Your task to perform on an android device: Go to network settings Image 0: 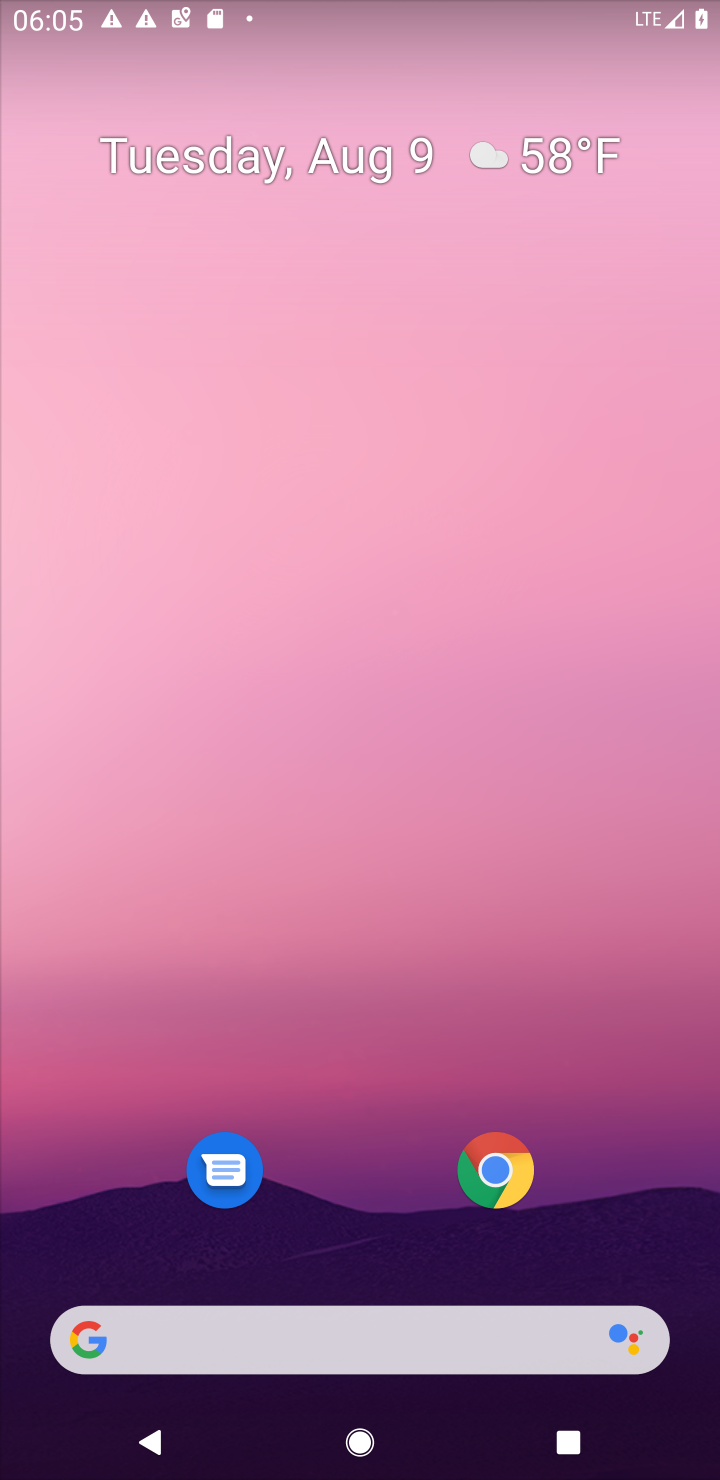
Step 0: drag from (423, 1246) to (473, 0)
Your task to perform on an android device: Go to network settings Image 1: 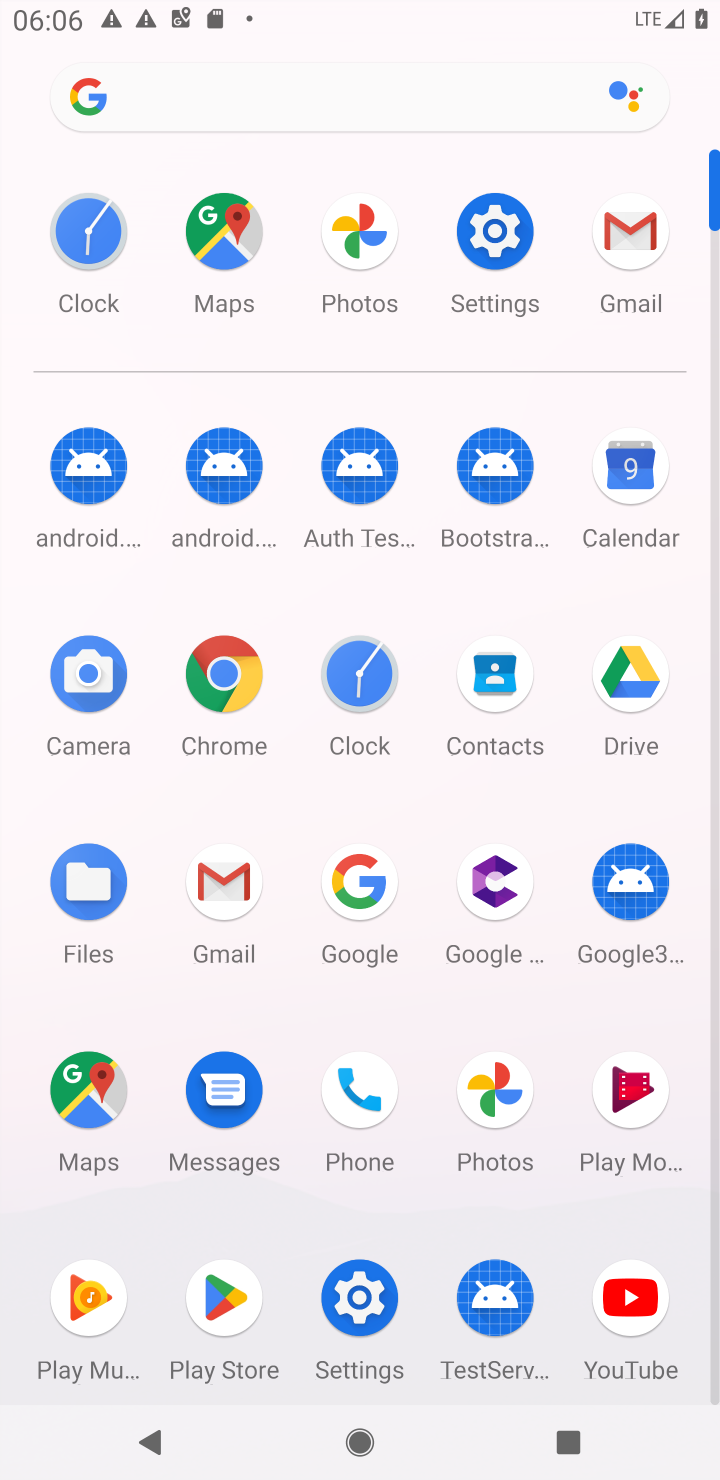
Step 1: click (490, 227)
Your task to perform on an android device: Go to network settings Image 2: 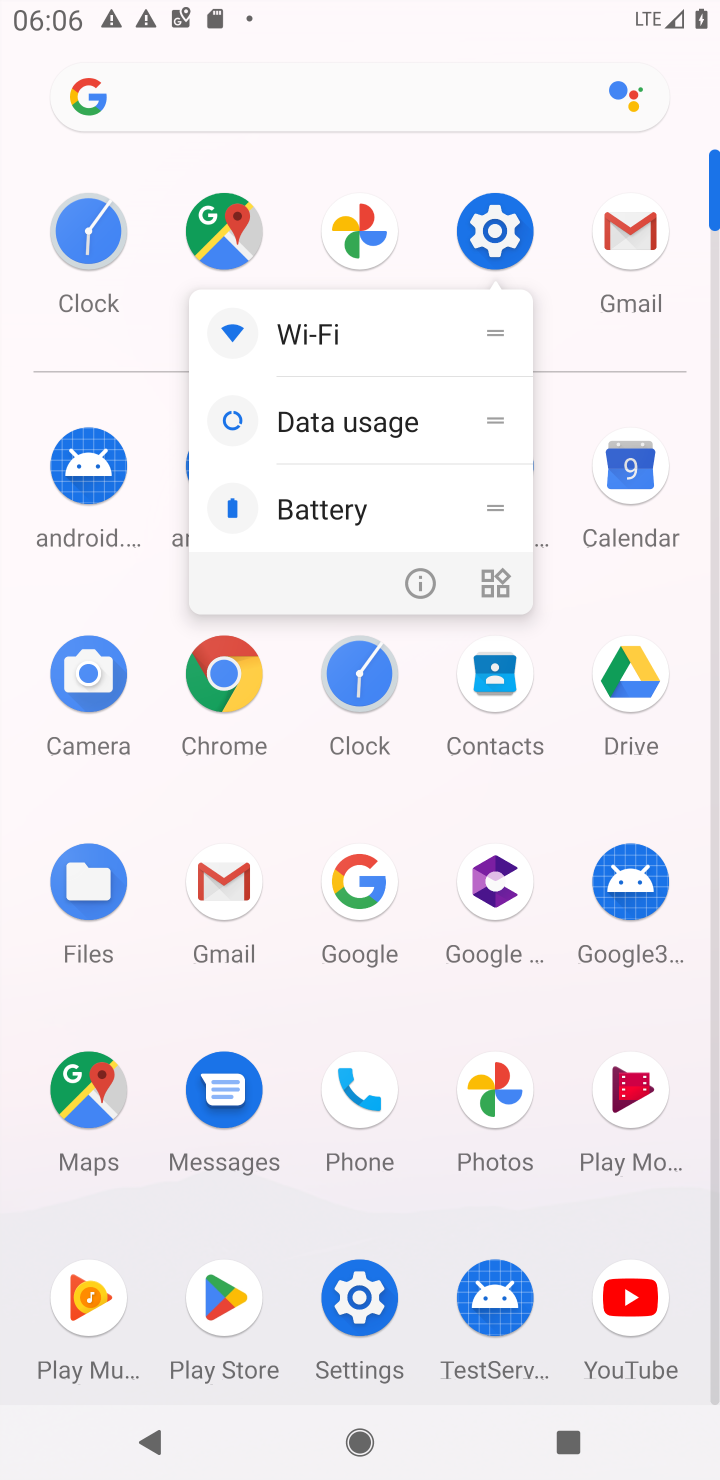
Step 2: click (490, 227)
Your task to perform on an android device: Go to network settings Image 3: 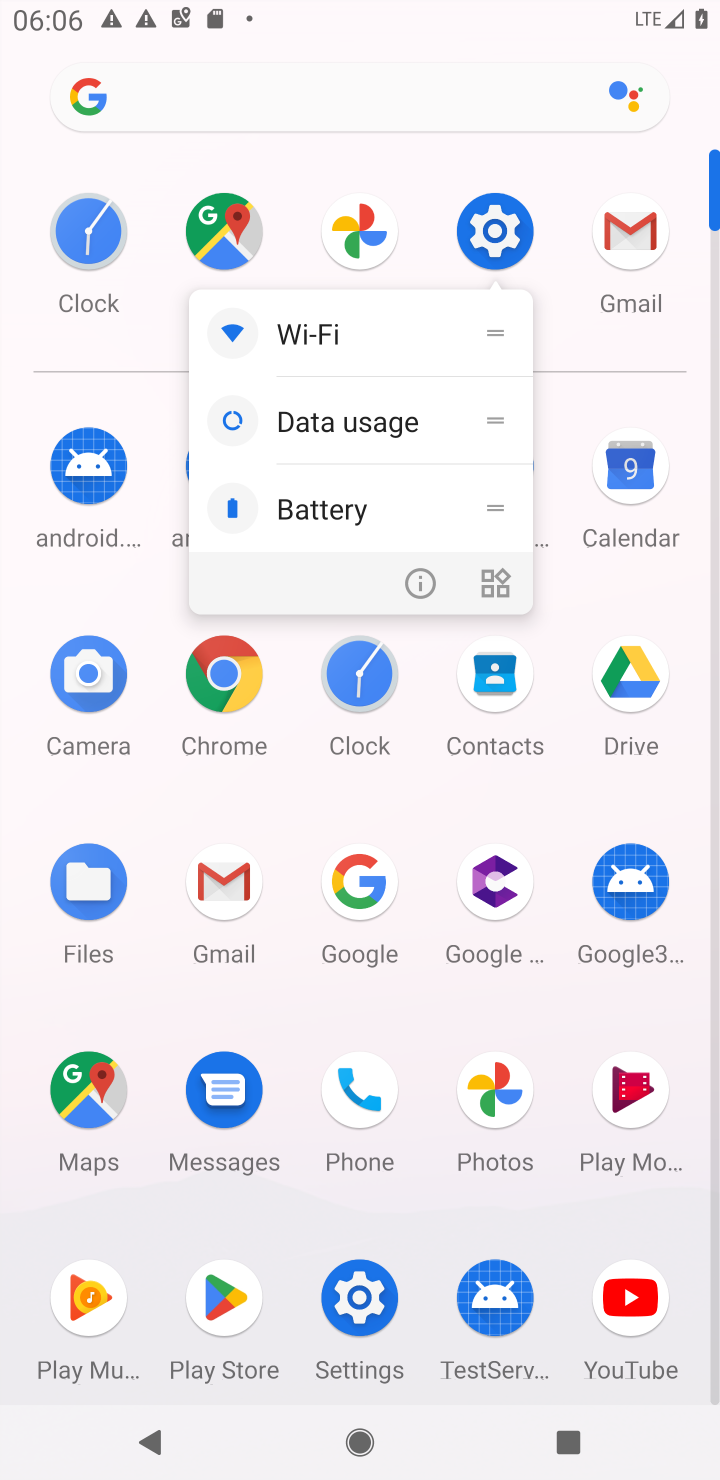
Step 3: click (490, 227)
Your task to perform on an android device: Go to network settings Image 4: 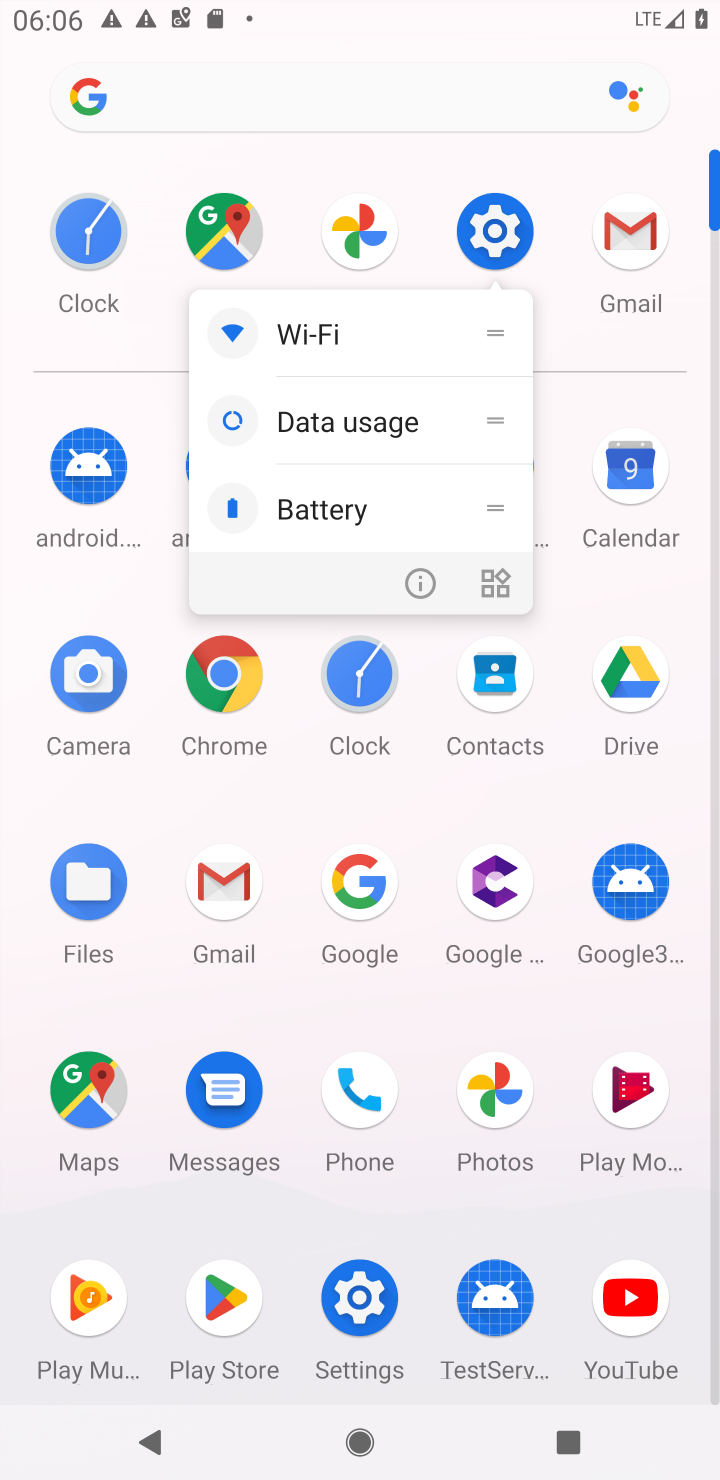
Step 4: click (490, 227)
Your task to perform on an android device: Go to network settings Image 5: 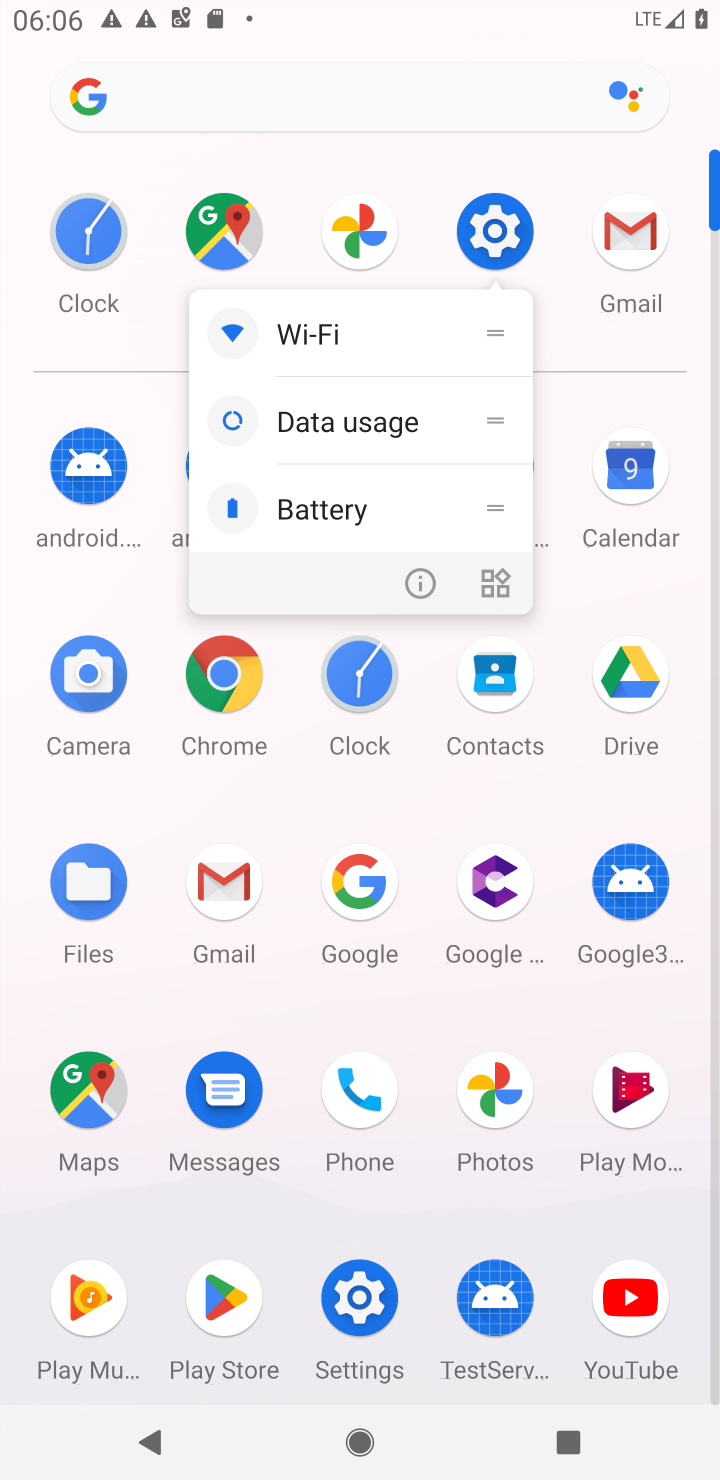
Step 5: click (508, 228)
Your task to perform on an android device: Go to network settings Image 6: 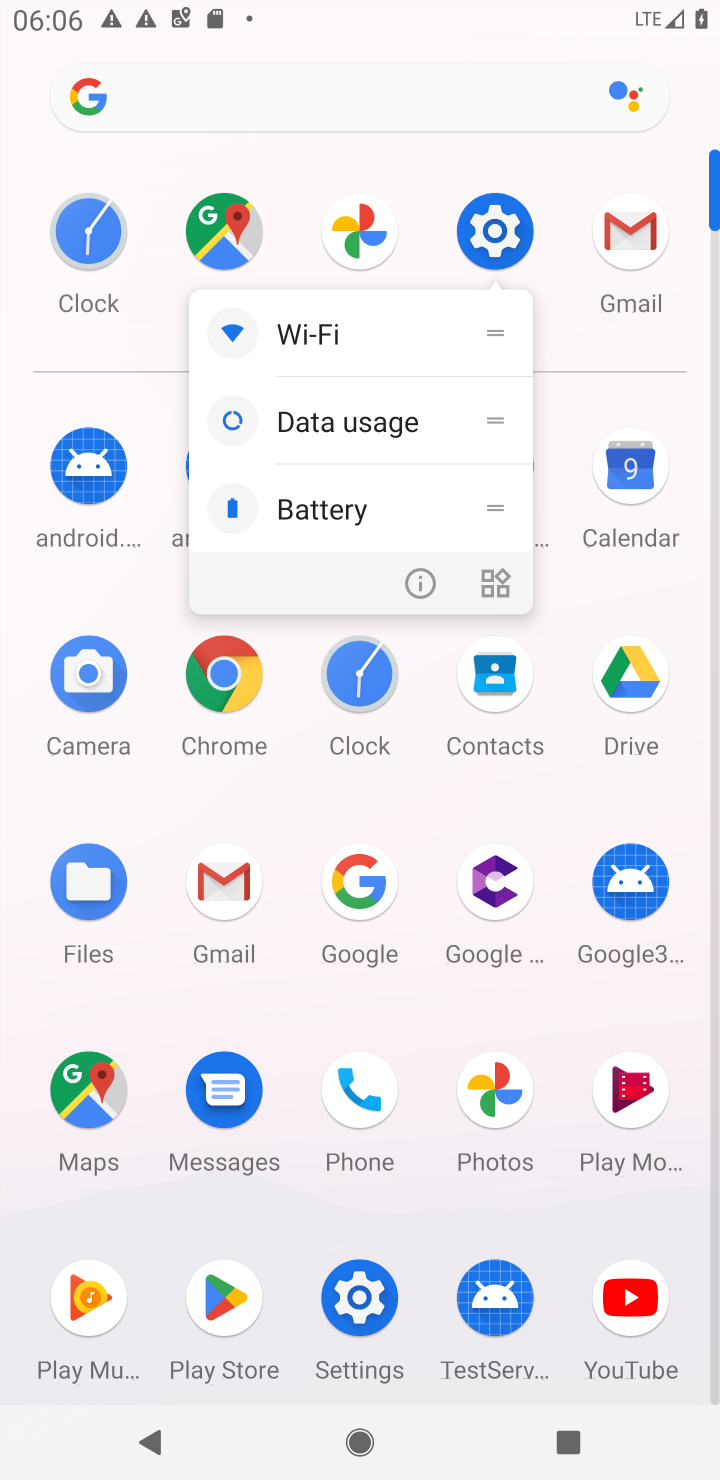
Step 6: click (485, 229)
Your task to perform on an android device: Go to network settings Image 7: 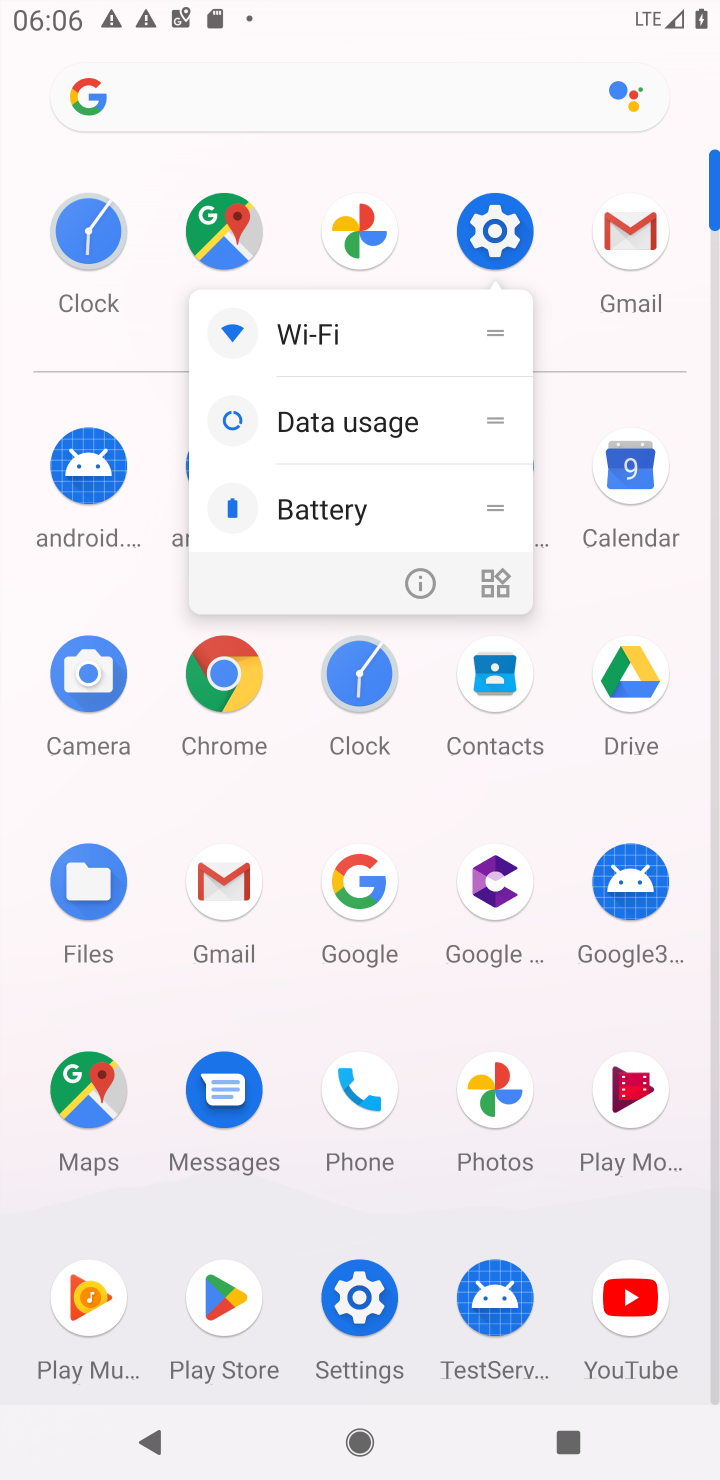
Step 7: click (485, 229)
Your task to perform on an android device: Go to network settings Image 8: 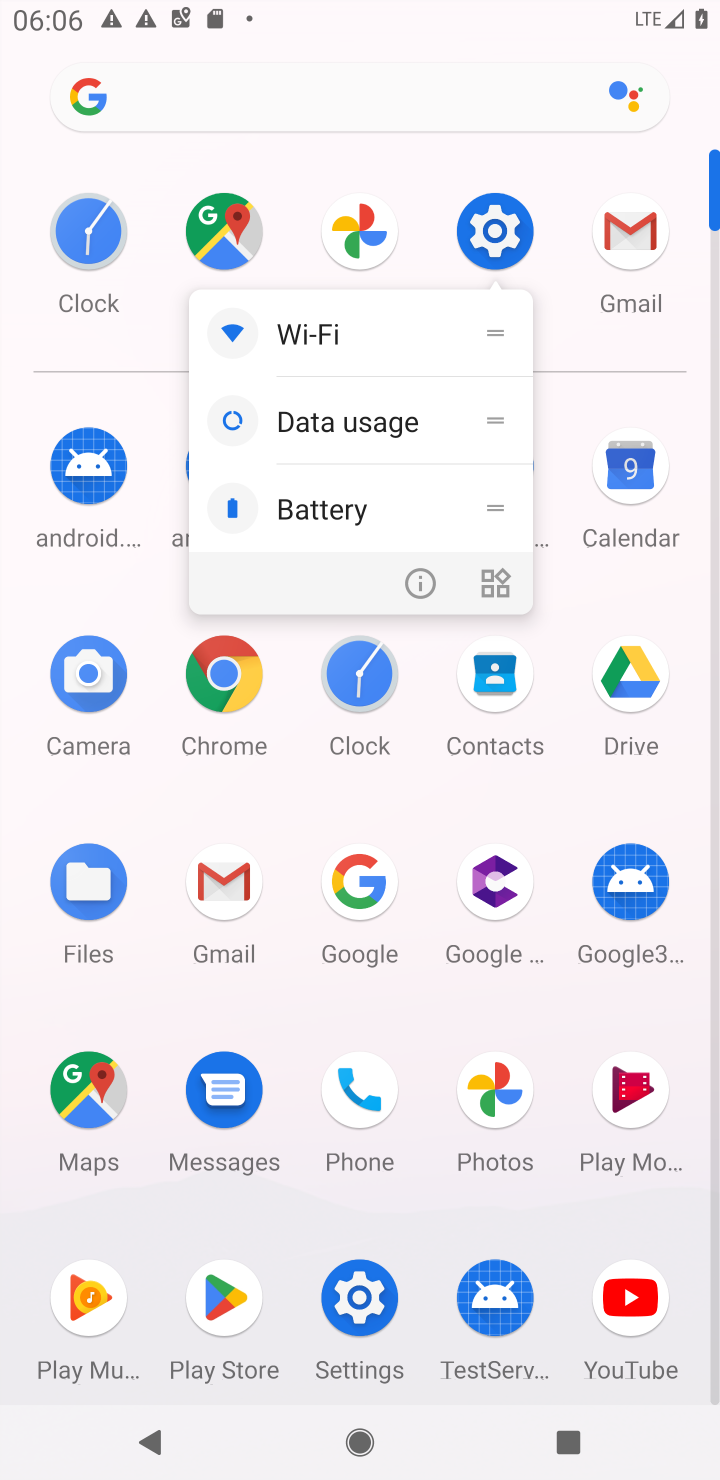
Step 8: click (485, 229)
Your task to perform on an android device: Go to network settings Image 9: 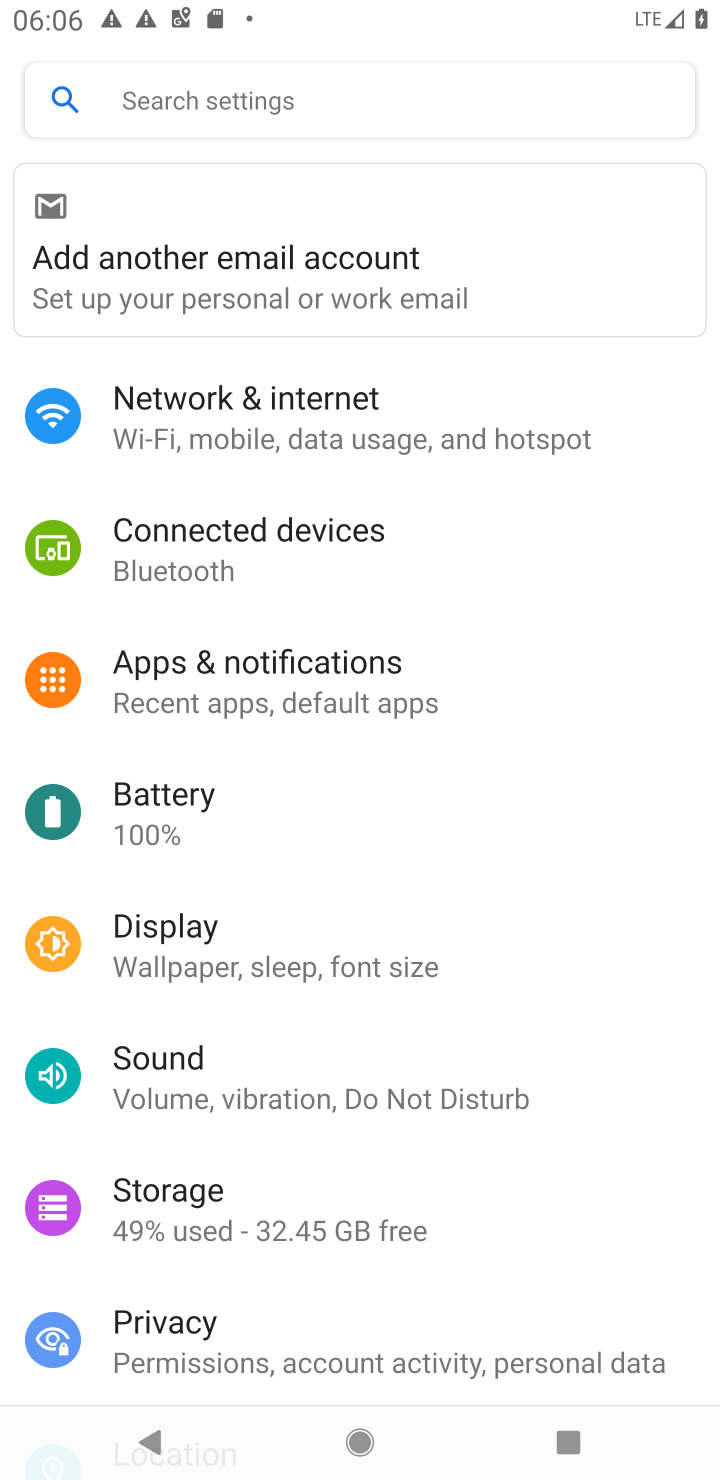
Step 9: click (288, 433)
Your task to perform on an android device: Go to network settings Image 10: 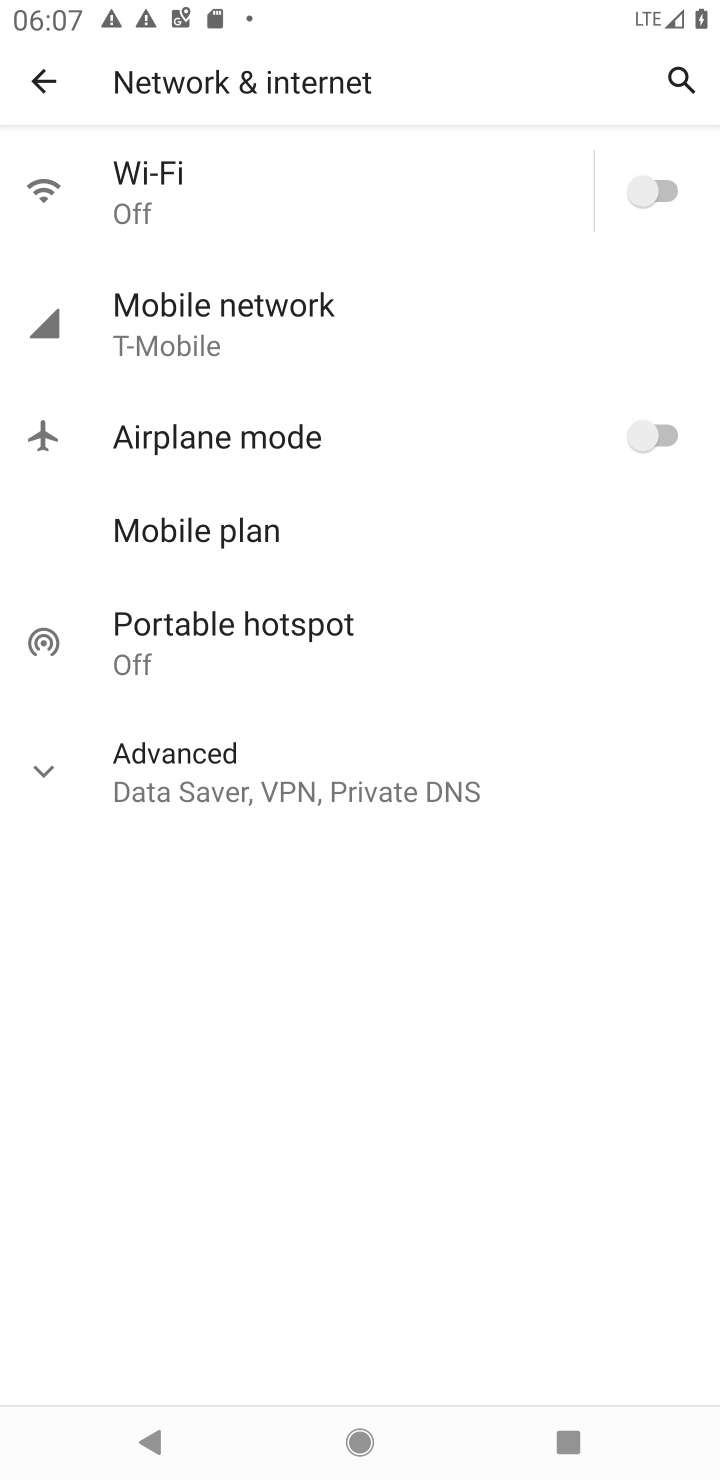
Step 10: task complete